Your task to perform on an android device: delete a single message in the gmail app Image 0: 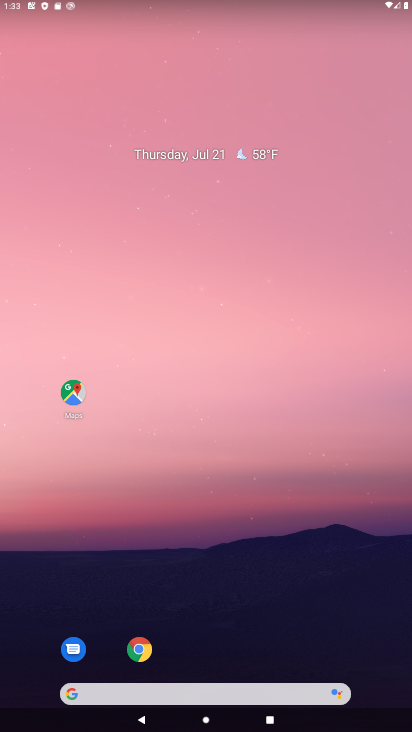
Step 0: drag from (257, 646) to (206, 105)
Your task to perform on an android device: delete a single message in the gmail app Image 1: 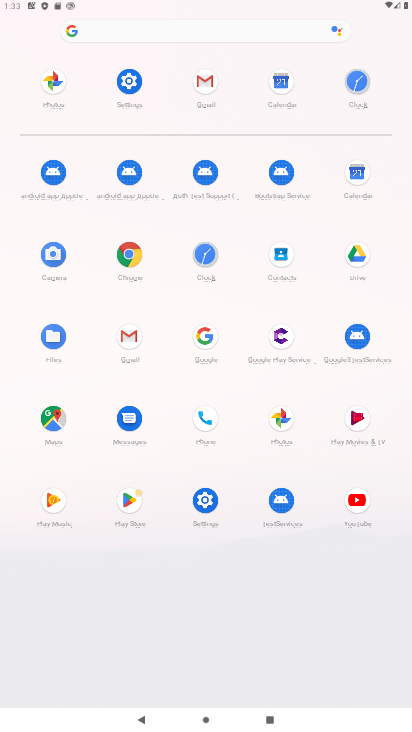
Step 1: click (212, 81)
Your task to perform on an android device: delete a single message in the gmail app Image 2: 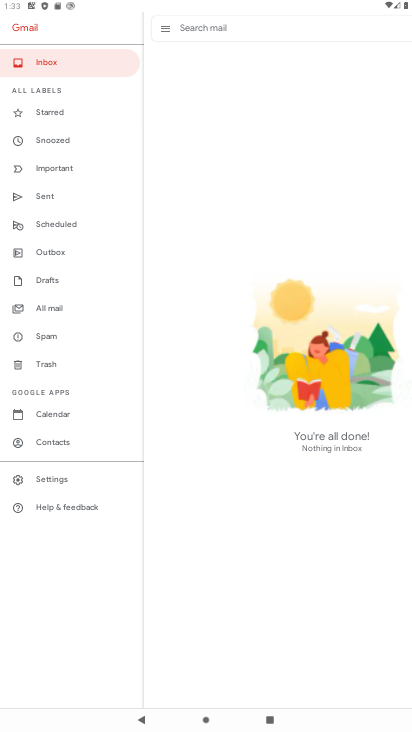
Step 2: task complete